Your task to perform on an android device: remove spam from my inbox in the gmail app Image 0: 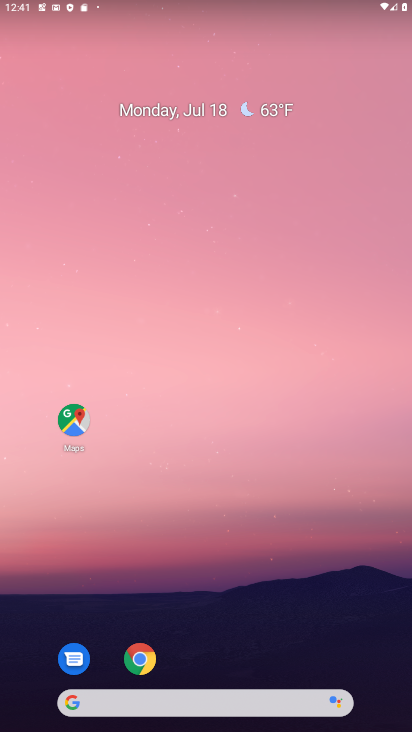
Step 0: drag from (198, 690) to (223, 207)
Your task to perform on an android device: remove spam from my inbox in the gmail app Image 1: 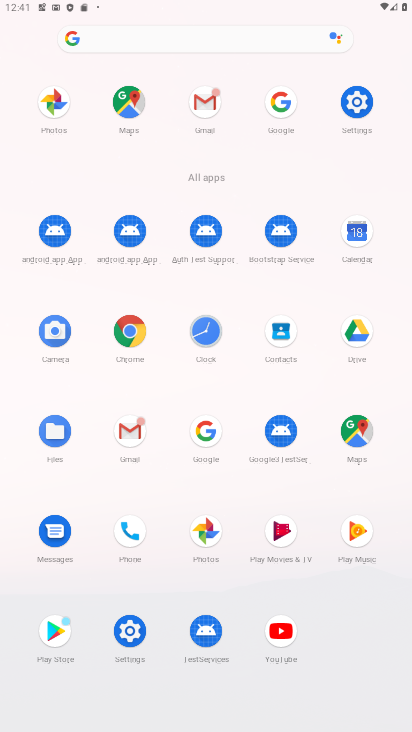
Step 1: click (119, 432)
Your task to perform on an android device: remove spam from my inbox in the gmail app Image 2: 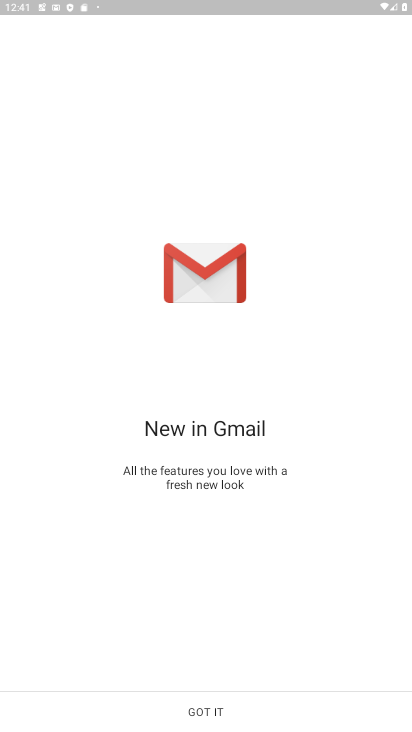
Step 2: click (198, 703)
Your task to perform on an android device: remove spam from my inbox in the gmail app Image 3: 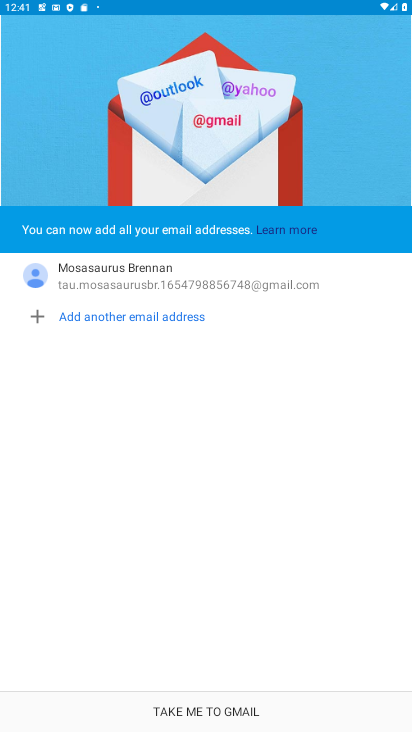
Step 3: click (194, 711)
Your task to perform on an android device: remove spam from my inbox in the gmail app Image 4: 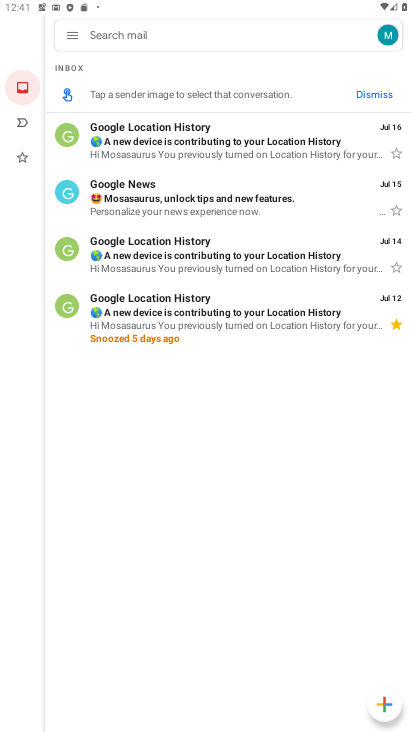
Step 4: click (67, 35)
Your task to perform on an android device: remove spam from my inbox in the gmail app Image 5: 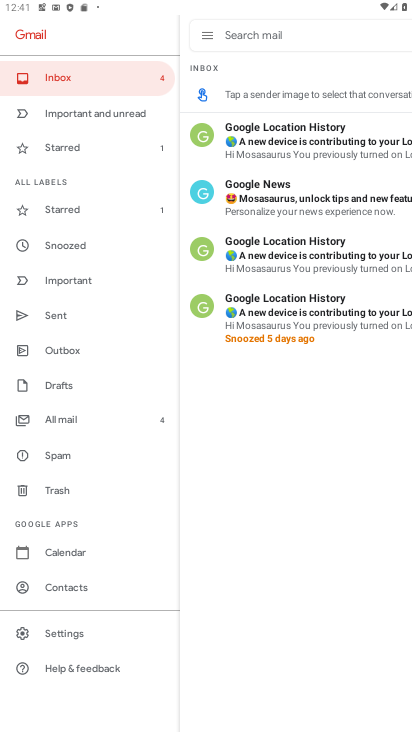
Step 5: click (59, 454)
Your task to perform on an android device: remove spam from my inbox in the gmail app Image 6: 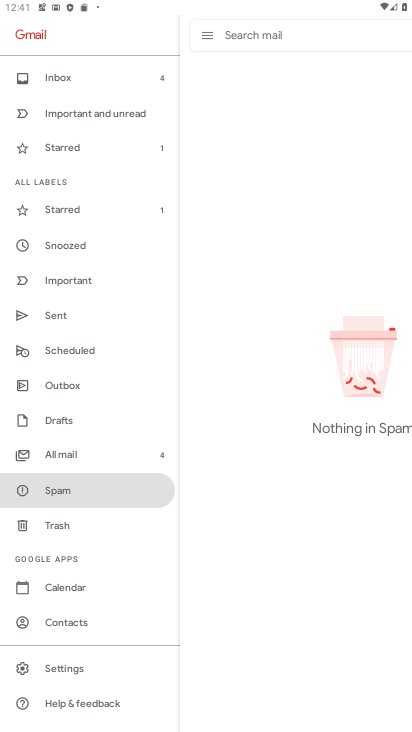
Step 6: task complete